Your task to perform on an android device: open the mobile data screen to see how much data has been used Image 0: 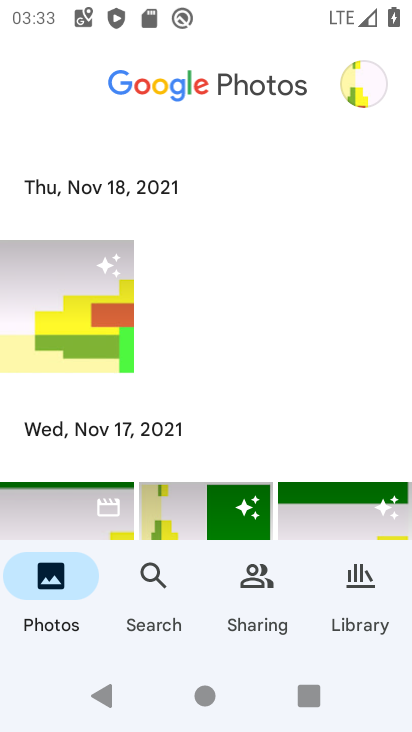
Step 0: press home button
Your task to perform on an android device: open the mobile data screen to see how much data has been used Image 1: 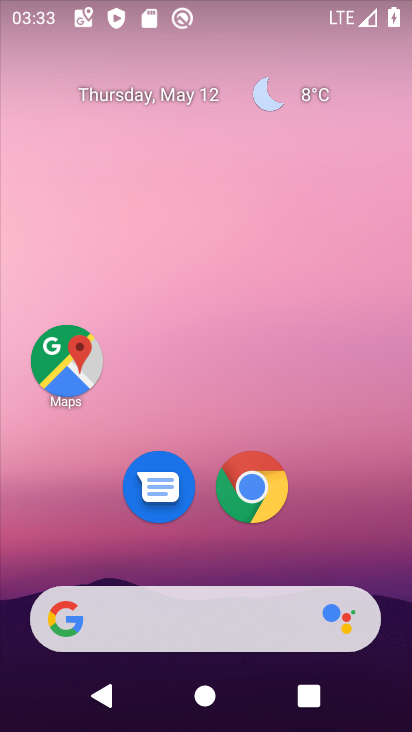
Step 1: drag from (338, 415) to (335, 136)
Your task to perform on an android device: open the mobile data screen to see how much data has been used Image 2: 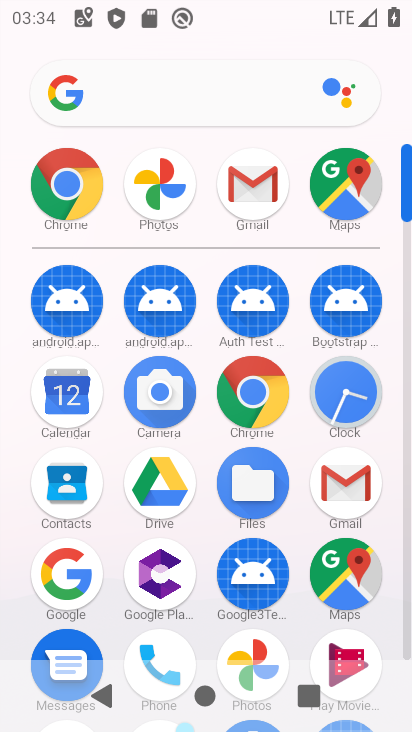
Step 2: drag from (208, 551) to (244, 256)
Your task to perform on an android device: open the mobile data screen to see how much data has been used Image 3: 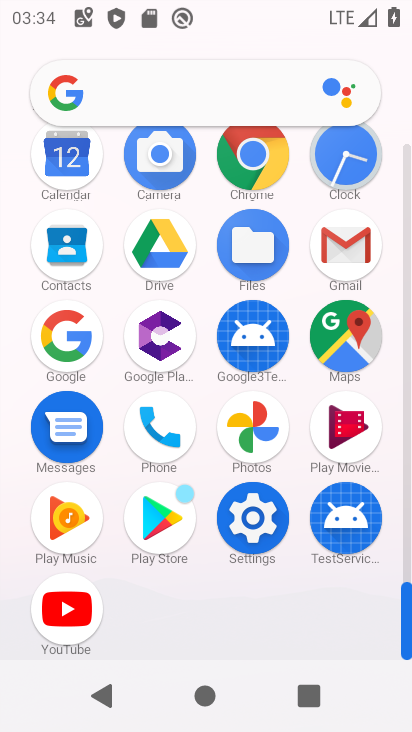
Step 3: click (257, 517)
Your task to perform on an android device: open the mobile data screen to see how much data has been used Image 4: 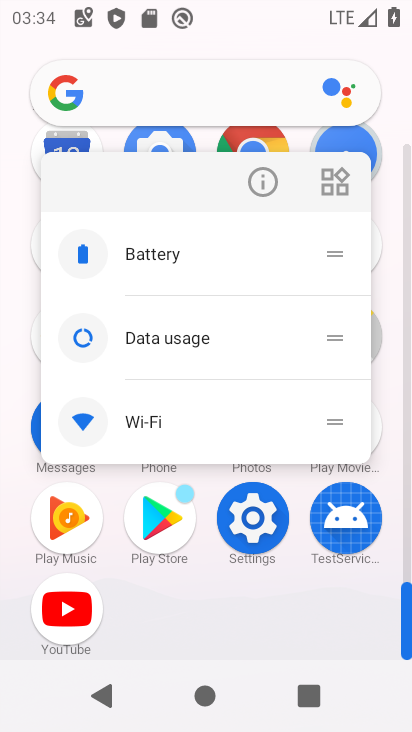
Step 4: click (257, 529)
Your task to perform on an android device: open the mobile data screen to see how much data has been used Image 5: 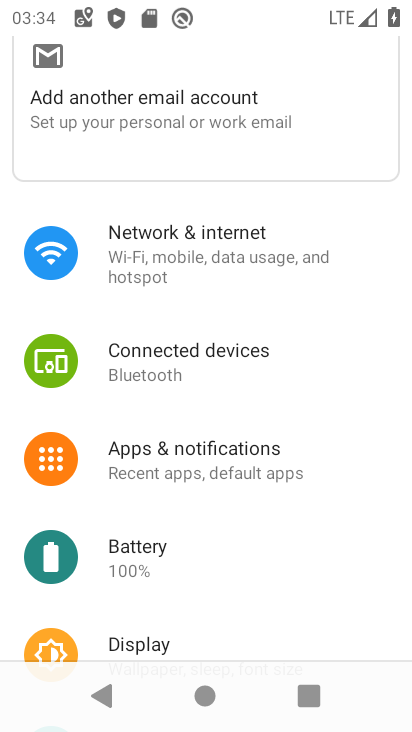
Step 5: drag from (215, 556) to (174, 598)
Your task to perform on an android device: open the mobile data screen to see how much data has been used Image 6: 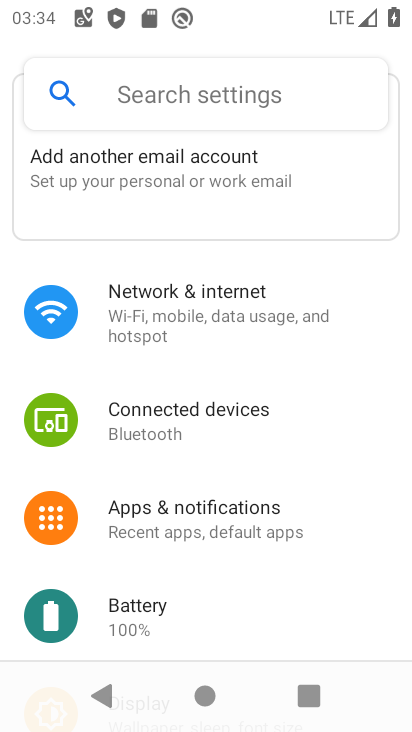
Step 6: click (171, 315)
Your task to perform on an android device: open the mobile data screen to see how much data has been used Image 7: 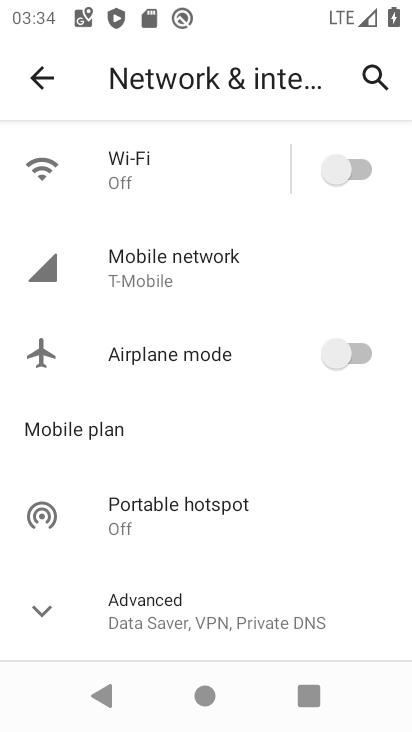
Step 7: click (177, 305)
Your task to perform on an android device: open the mobile data screen to see how much data has been used Image 8: 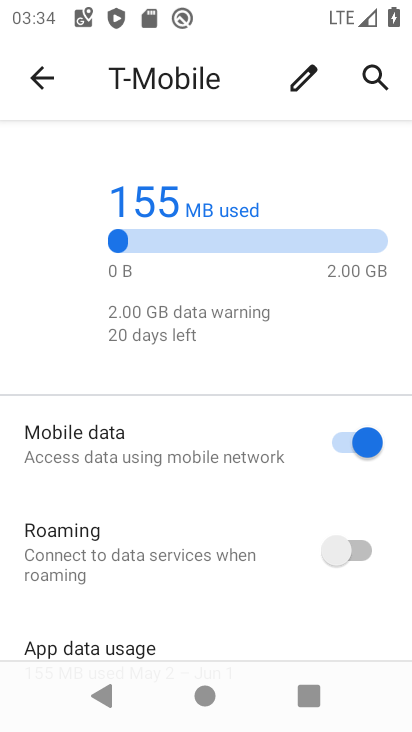
Step 8: task complete